Your task to perform on an android device: Set the phone to "Do not disturb". Image 0: 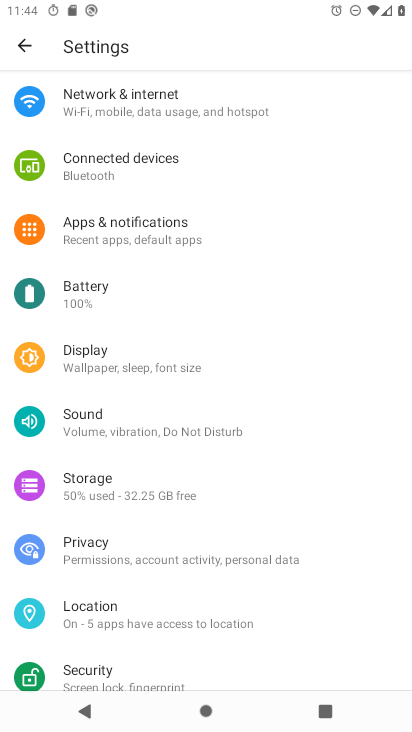
Step 0: drag from (360, 467) to (360, 359)
Your task to perform on an android device: Set the phone to "Do not disturb". Image 1: 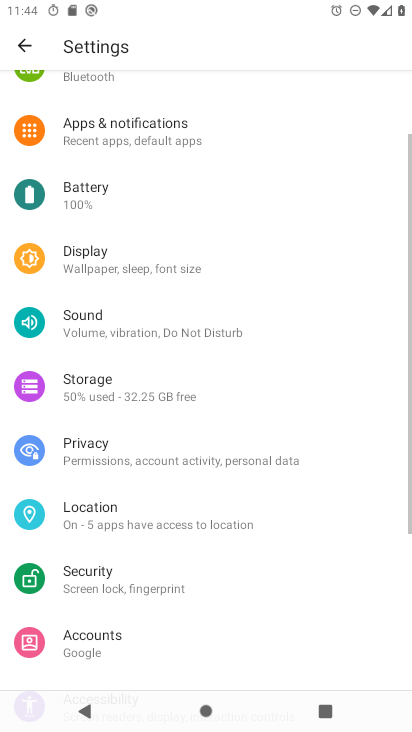
Step 1: drag from (347, 483) to (348, 400)
Your task to perform on an android device: Set the phone to "Do not disturb". Image 2: 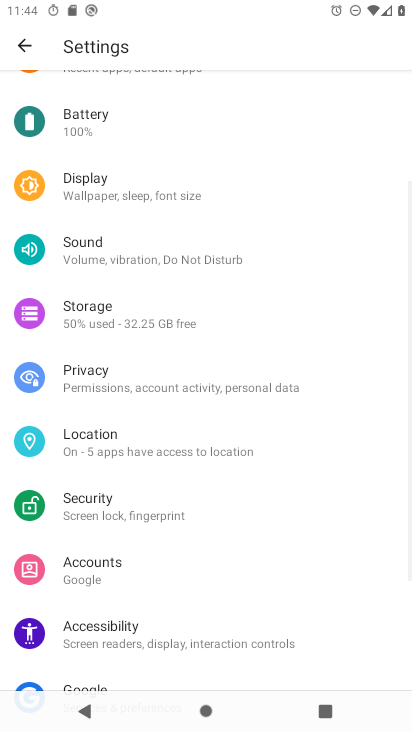
Step 2: drag from (346, 517) to (347, 414)
Your task to perform on an android device: Set the phone to "Do not disturb". Image 3: 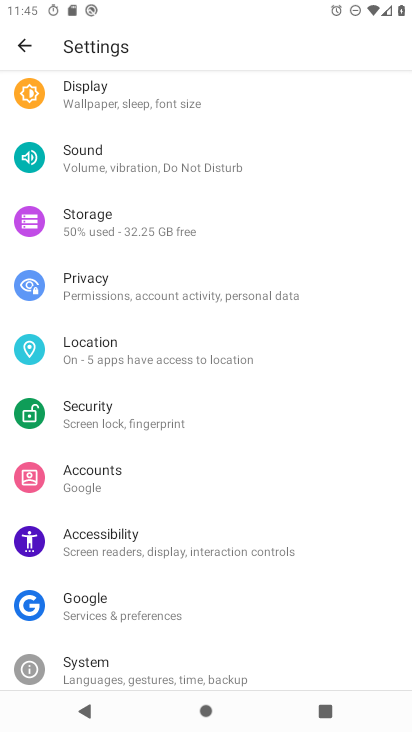
Step 3: drag from (349, 537) to (348, 440)
Your task to perform on an android device: Set the phone to "Do not disturb". Image 4: 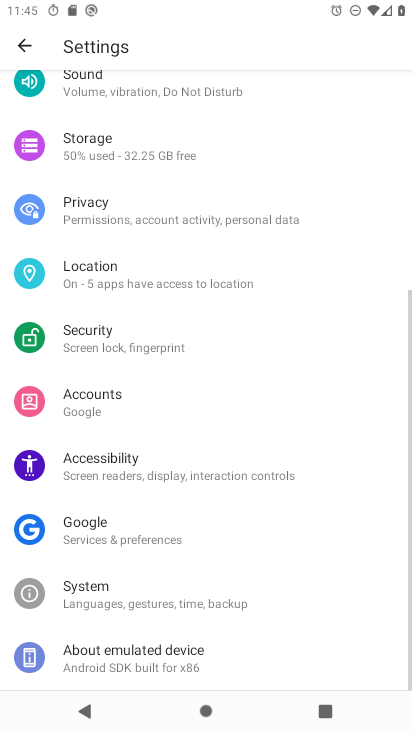
Step 4: drag from (351, 557) to (355, 446)
Your task to perform on an android device: Set the phone to "Do not disturb". Image 5: 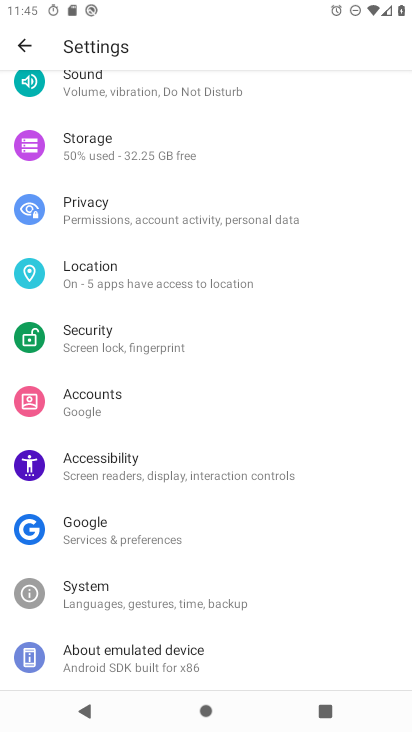
Step 5: drag from (344, 337) to (341, 442)
Your task to perform on an android device: Set the phone to "Do not disturb". Image 6: 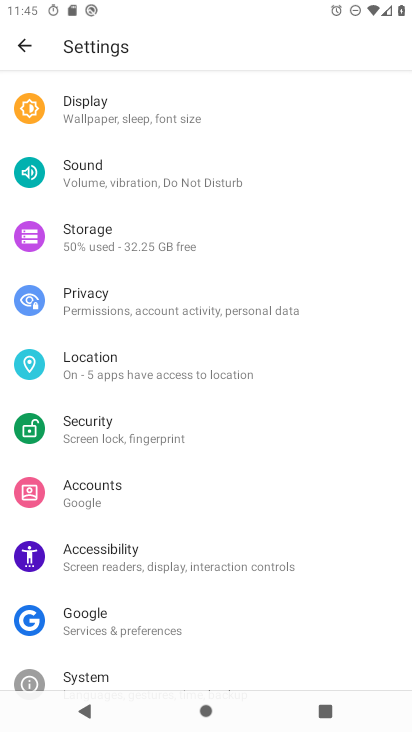
Step 6: drag from (345, 272) to (350, 409)
Your task to perform on an android device: Set the phone to "Do not disturb". Image 7: 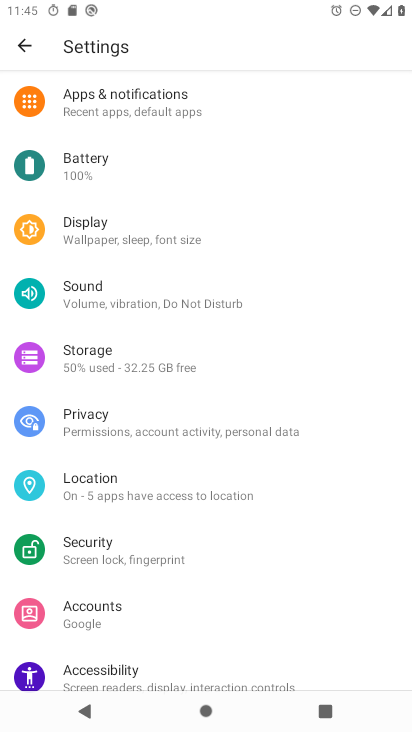
Step 7: drag from (351, 223) to (342, 368)
Your task to perform on an android device: Set the phone to "Do not disturb". Image 8: 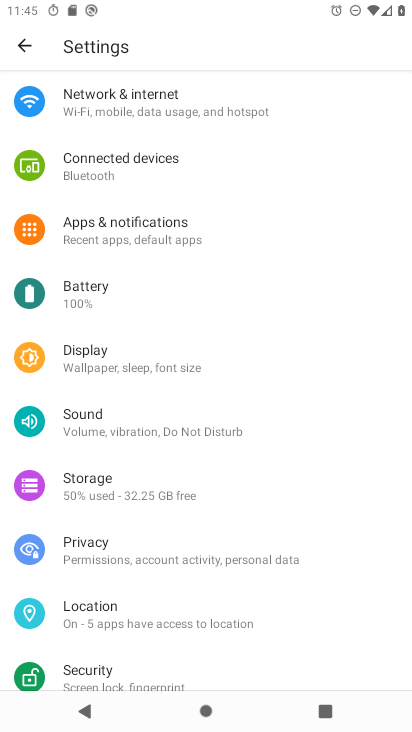
Step 8: click (215, 433)
Your task to perform on an android device: Set the phone to "Do not disturb". Image 9: 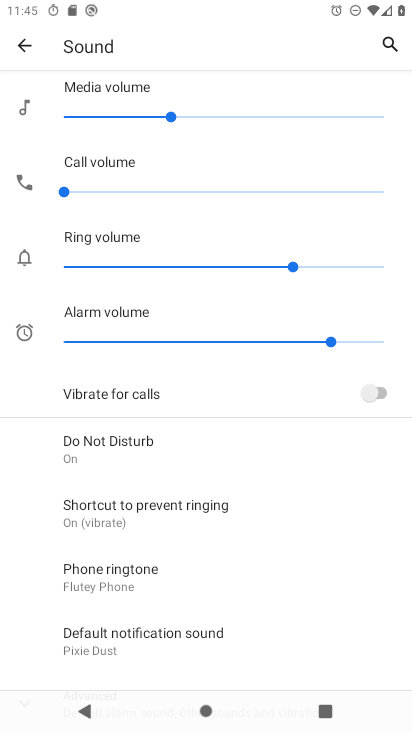
Step 9: task complete